Your task to perform on an android device: change the clock display to show seconds Image 0: 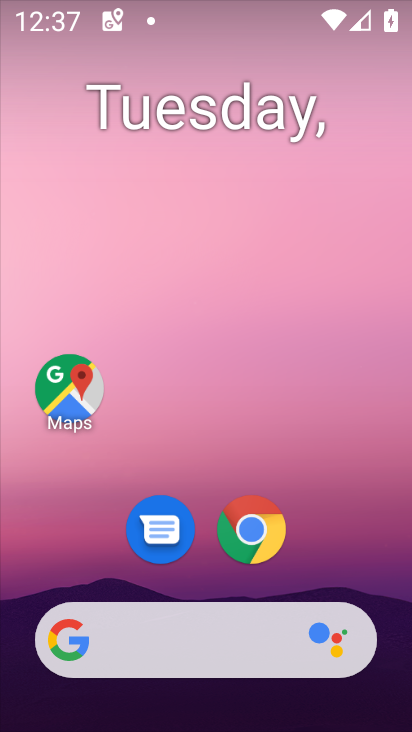
Step 0: press home button
Your task to perform on an android device: change the clock display to show seconds Image 1: 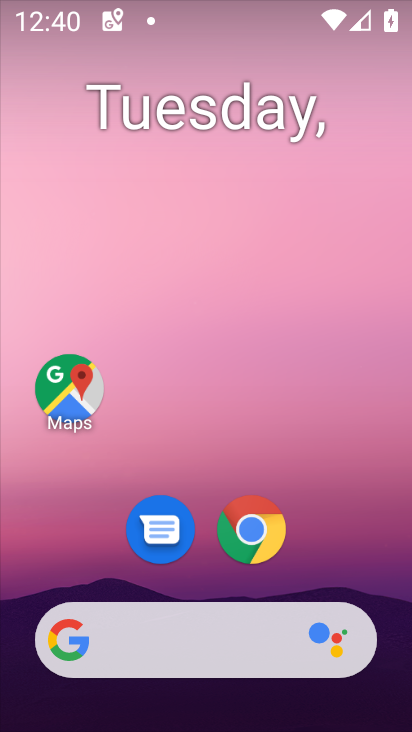
Step 1: drag from (201, 496) to (224, 123)
Your task to perform on an android device: change the clock display to show seconds Image 2: 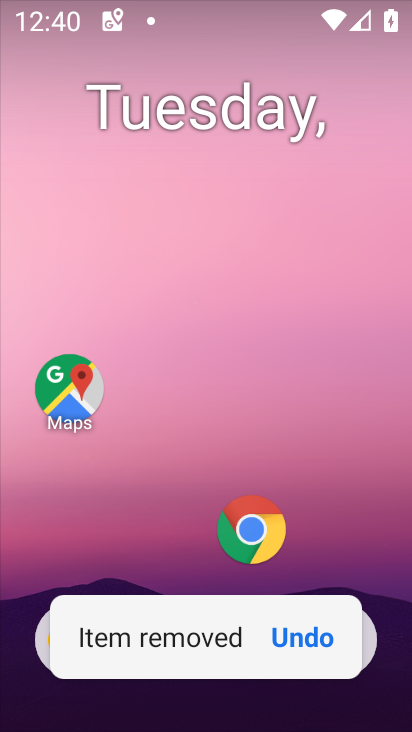
Step 2: drag from (191, 686) to (201, 18)
Your task to perform on an android device: change the clock display to show seconds Image 3: 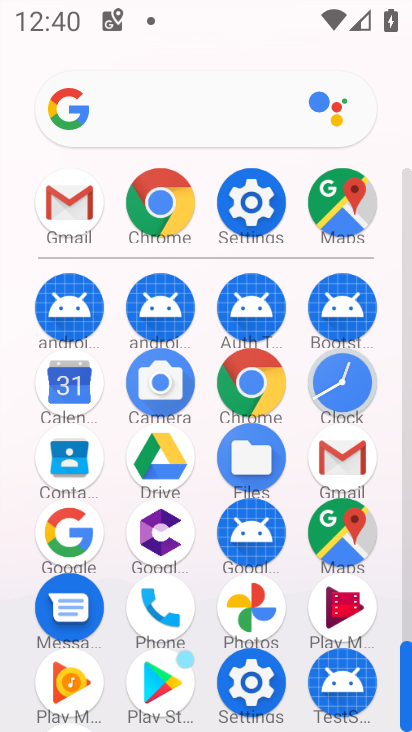
Step 3: click (334, 391)
Your task to perform on an android device: change the clock display to show seconds Image 4: 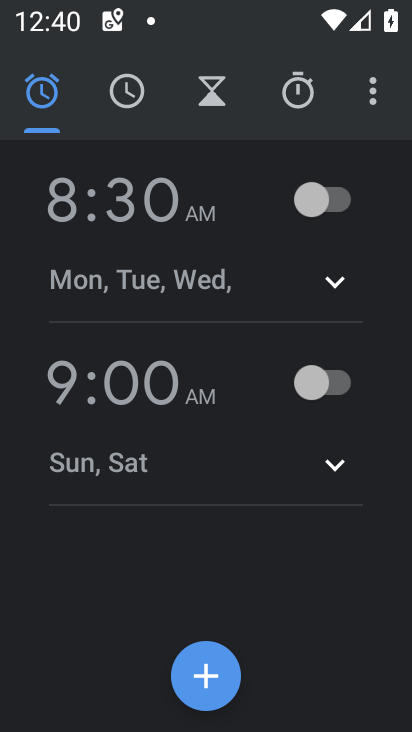
Step 4: click (382, 95)
Your task to perform on an android device: change the clock display to show seconds Image 5: 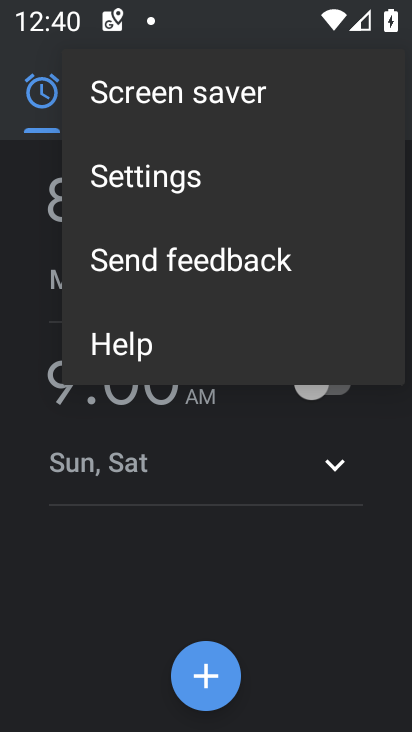
Step 5: click (197, 167)
Your task to perform on an android device: change the clock display to show seconds Image 6: 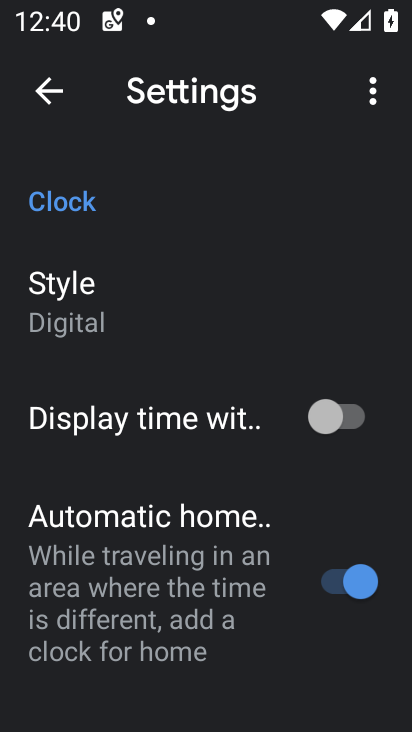
Step 6: click (60, 278)
Your task to perform on an android device: change the clock display to show seconds Image 7: 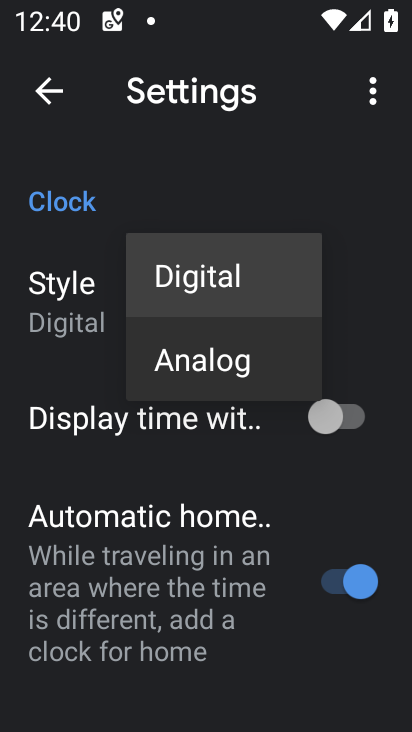
Step 7: click (187, 370)
Your task to perform on an android device: change the clock display to show seconds Image 8: 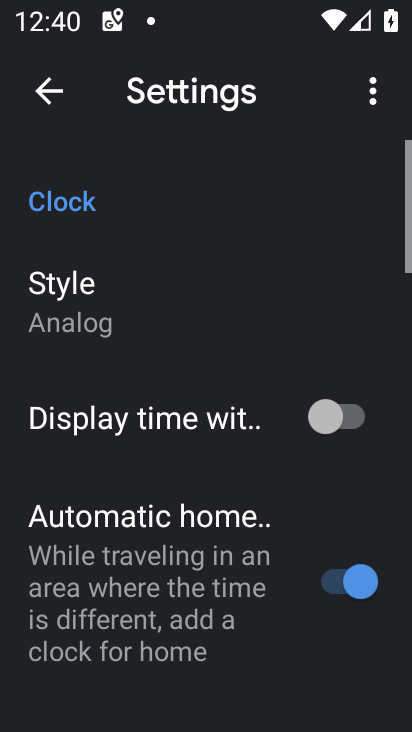
Step 8: task complete